Your task to perform on an android device: turn on the 12-hour format for clock Image 0: 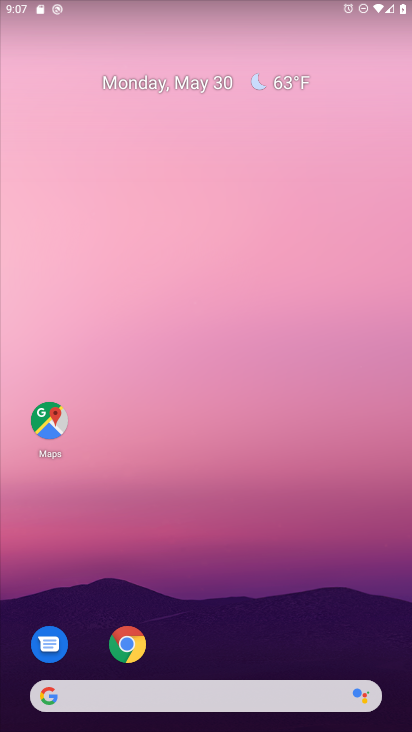
Step 0: drag from (193, 617) to (241, 125)
Your task to perform on an android device: turn on the 12-hour format for clock Image 1: 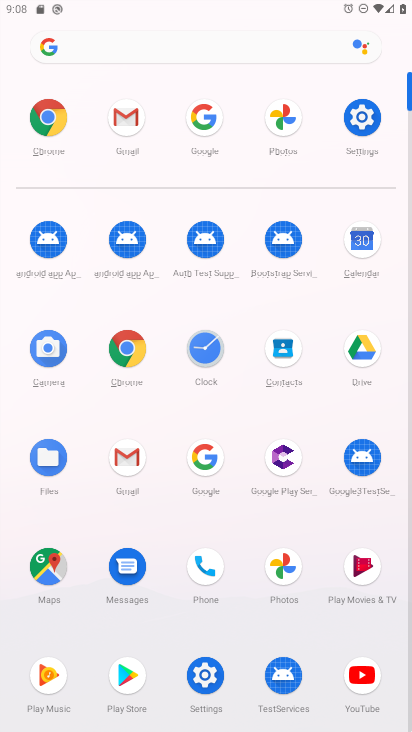
Step 1: click (205, 349)
Your task to perform on an android device: turn on the 12-hour format for clock Image 2: 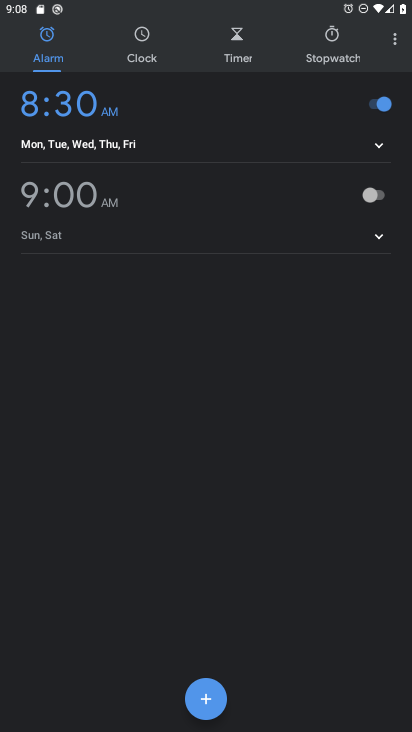
Step 2: click (387, 38)
Your task to perform on an android device: turn on the 12-hour format for clock Image 3: 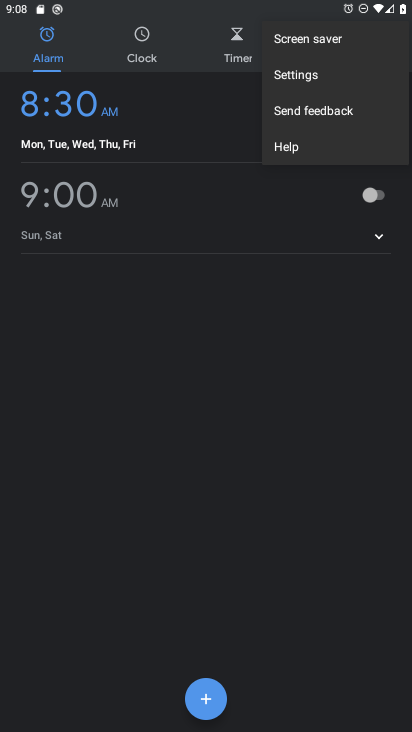
Step 3: click (283, 76)
Your task to perform on an android device: turn on the 12-hour format for clock Image 4: 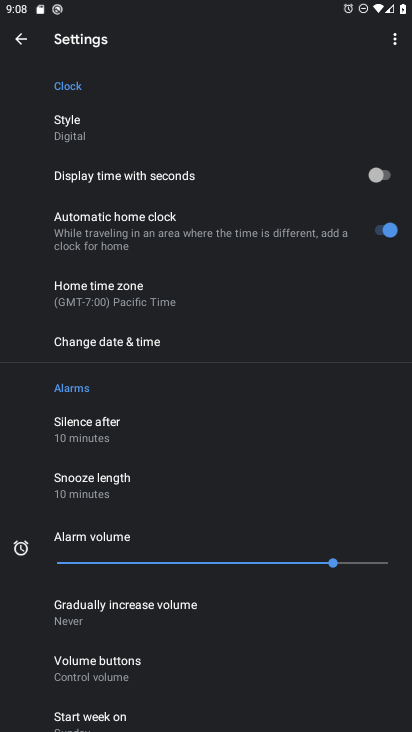
Step 4: click (152, 343)
Your task to perform on an android device: turn on the 12-hour format for clock Image 5: 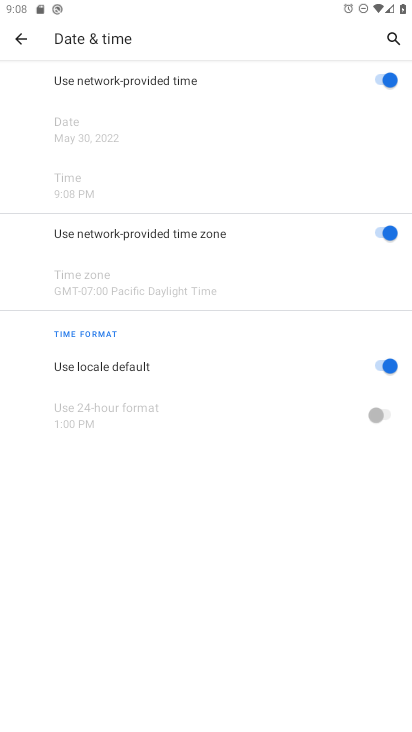
Step 5: task complete